Your task to perform on an android device: Go to eBay Image 0: 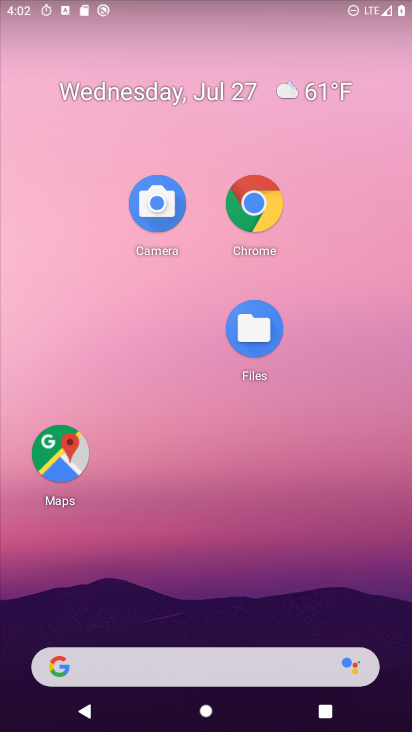
Step 0: click (247, 216)
Your task to perform on an android device: Go to eBay Image 1: 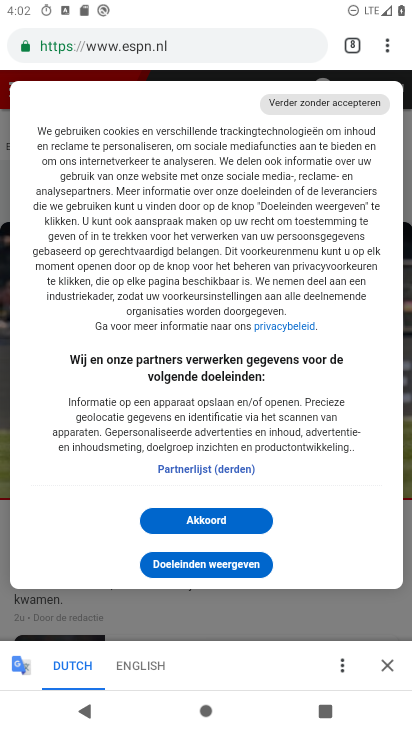
Step 1: click (354, 38)
Your task to perform on an android device: Go to eBay Image 2: 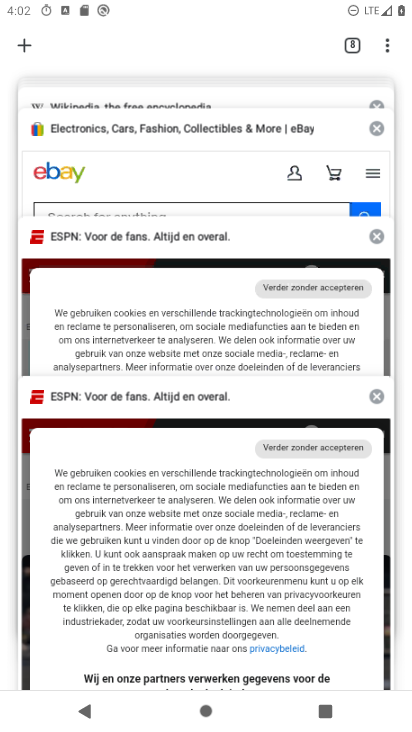
Step 2: click (100, 183)
Your task to perform on an android device: Go to eBay Image 3: 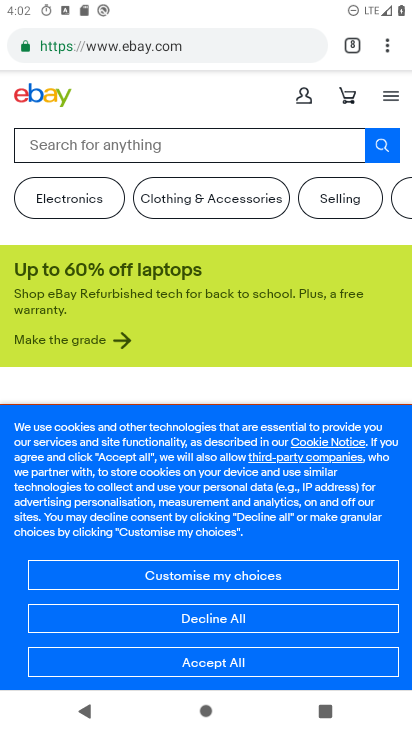
Step 3: task complete